Your task to perform on an android device: Open Google Maps and go to "Timeline" Image 0: 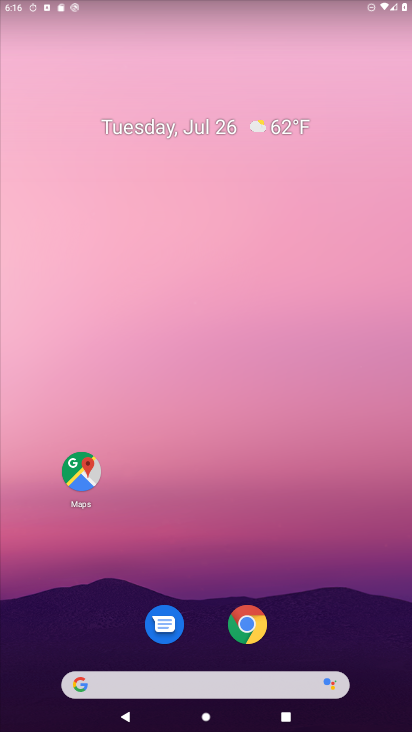
Step 0: drag from (214, 625) to (282, 0)
Your task to perform on an android device: Open Google Maps and go to "Timeline" Image 1: 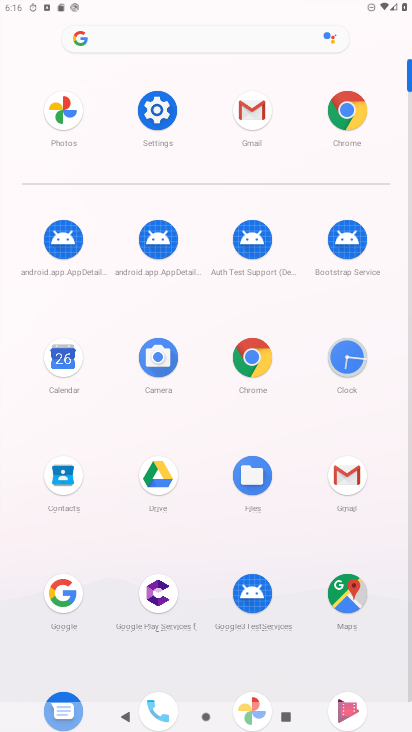
Step 1: click (348, 580)
Your task to perform on an android device: Open Google Maps and go to "Timeline" Image 2: 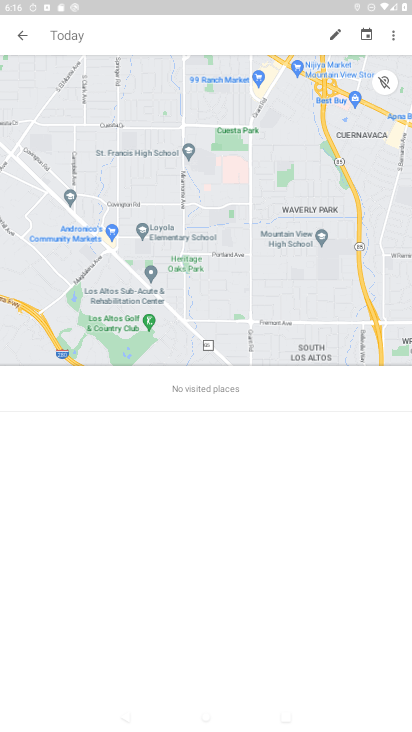
Step 2: click (389, 32)
Your task to perform on an android device: Open Google Maps and go to "Timeline" Image 3: 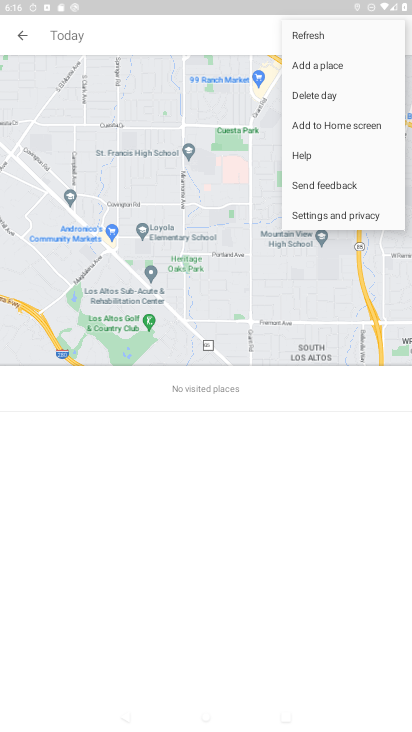
Step 3: click (334, 208)
Your task to perform on an android device: Open Google Maps and go to "Timeline" Image 4: 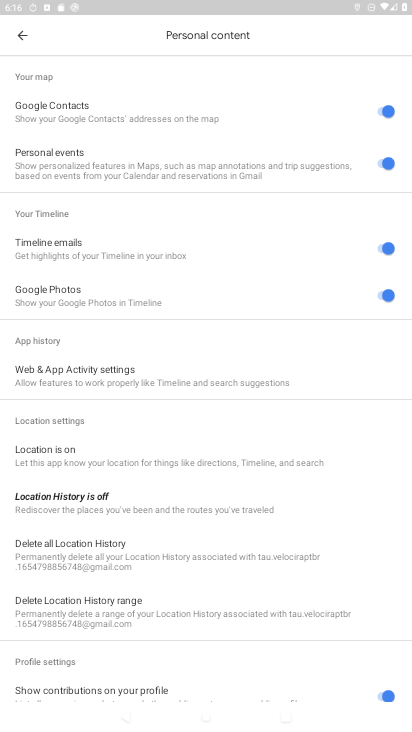
Step 4: task complete